Your task to perform on an android device: empty trash in the gmail app Image 0: 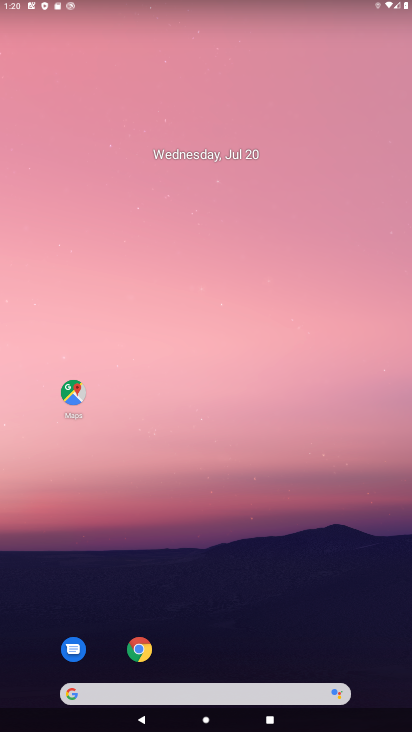
Step 0: press home button
Your task to perform on an android device: empty trash in the gmail app Image 1: 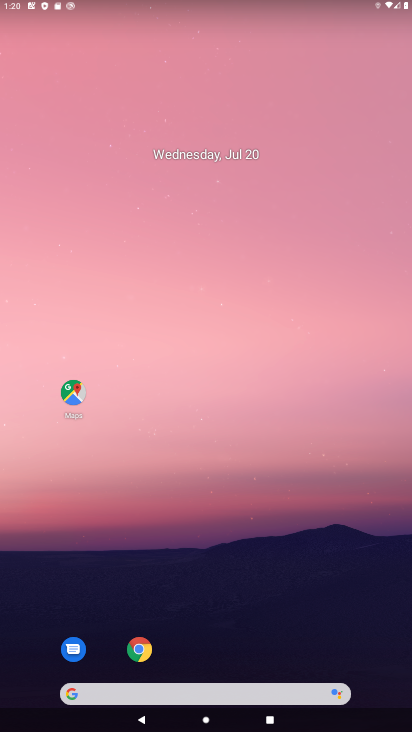
Step 1: press home button
Your task to perform on an android device: empty trash in the gmail app Image 2: 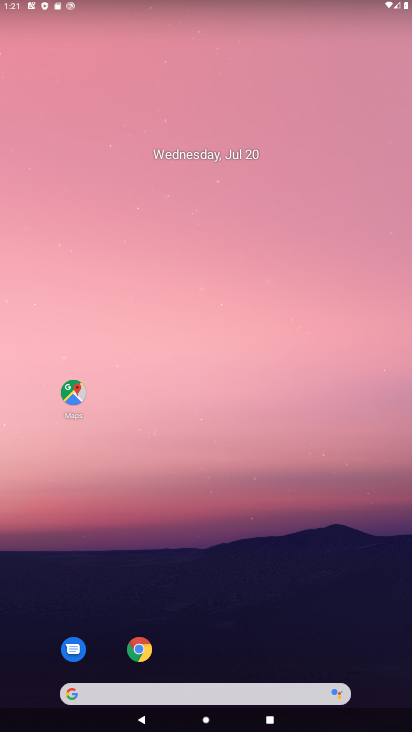
Step 2: drag from (229, 648) to (246, 18)
Your task to perform on an android device: empty trash in the gmail app Image 3: 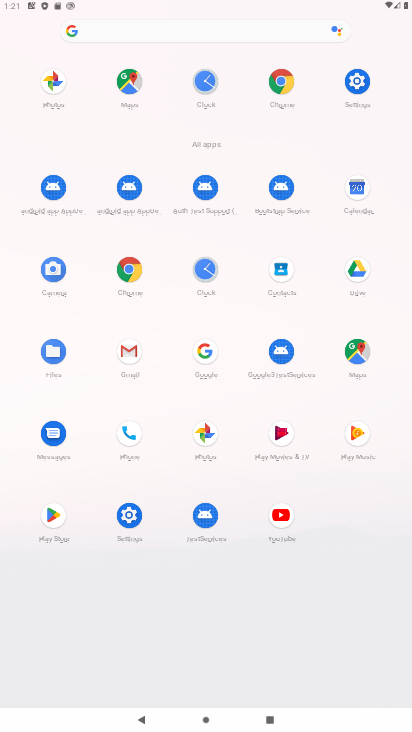
Step 3: click (127, 369)
Your task to perform on an android device: empty trash in the gmail app Image 4: 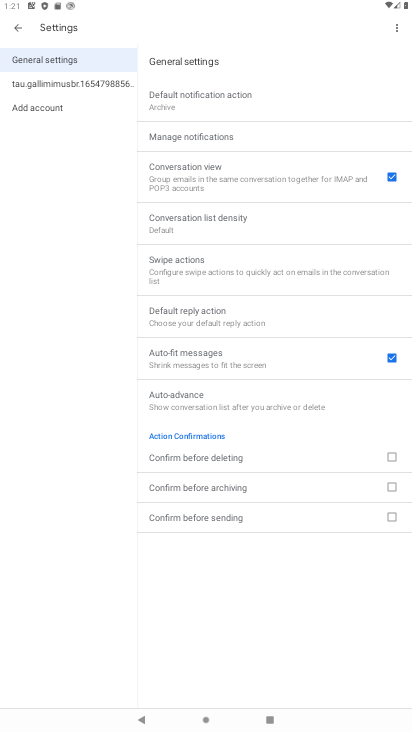
Step 4: click (16, 28)
Your task to perform on an android device: empty trash in the gmail app Image 5: 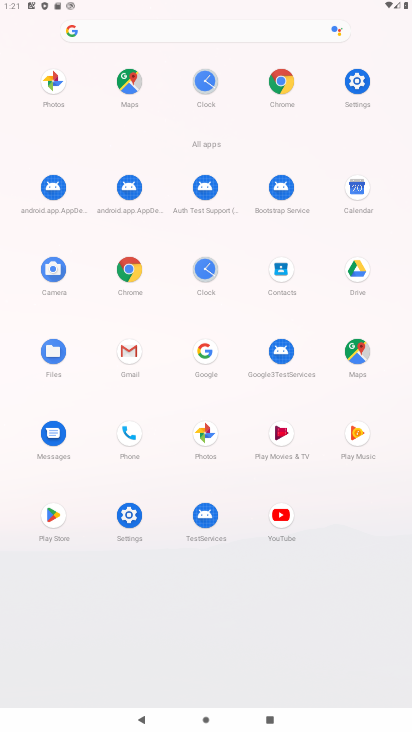
Step 5: click (16, 28)
Your task to perform on an android device: empty trash in the gmail app Image 6: 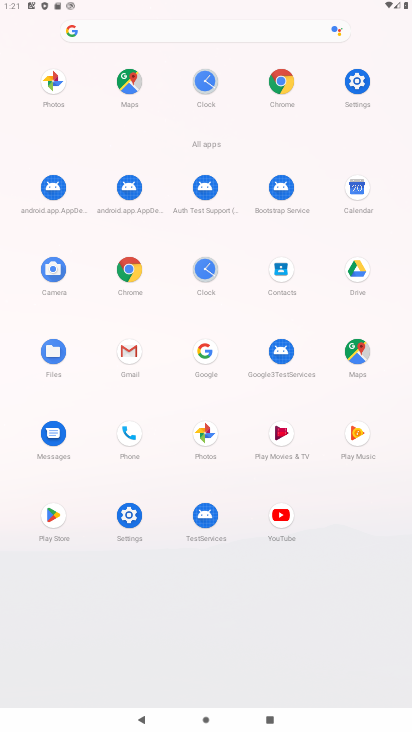
Step 6: click (129, 283)
Your task to perform on an android device: empty trash in the gmail app Image 7: 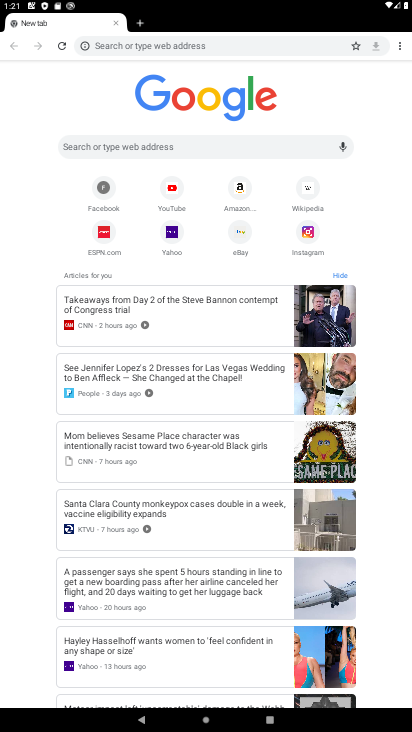
Step 7: press home button
Your task to perform on an android device: empty trash in the gmail app Image 8: 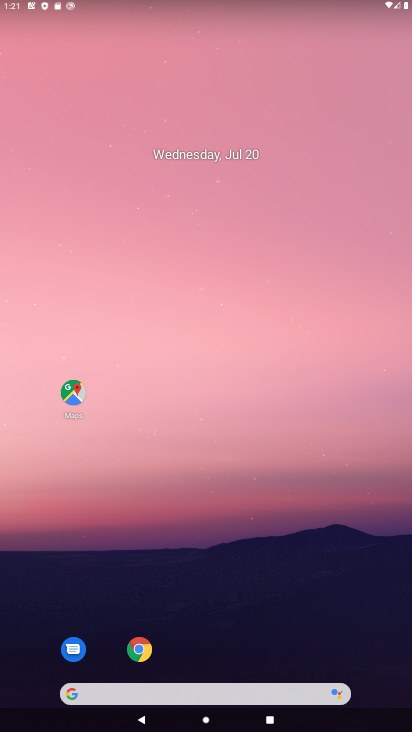
Step 8: drag from (268, 573) to (231, 241)
Your task to perform on an android device: empty trash in the gmail app Image 9: 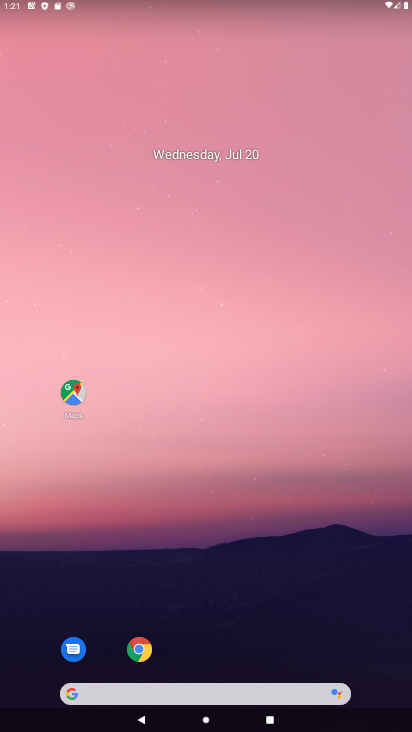
Step 9: drag from (321, 612) to (258, 18)
Your task to perform on an android device: empty trash in the gmail app Image 10: 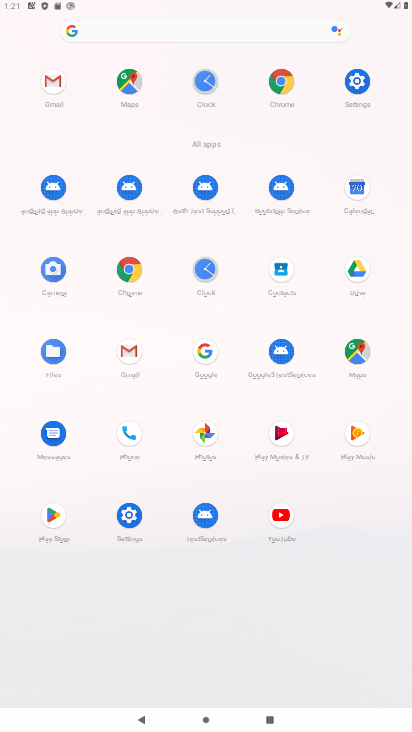
Step 10: click (133, 358)
Your task to perform on an android device: empty trash in the gmail app Image 11: 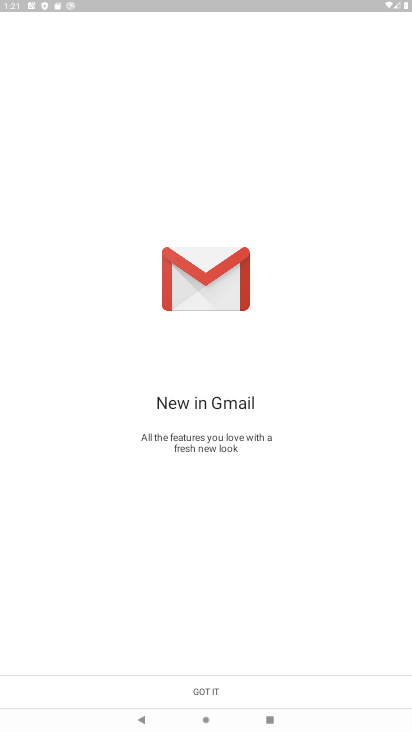
Step 11: click (231, 692)
Your task to perform on an android device: empty trash in the gmail app Image 12: 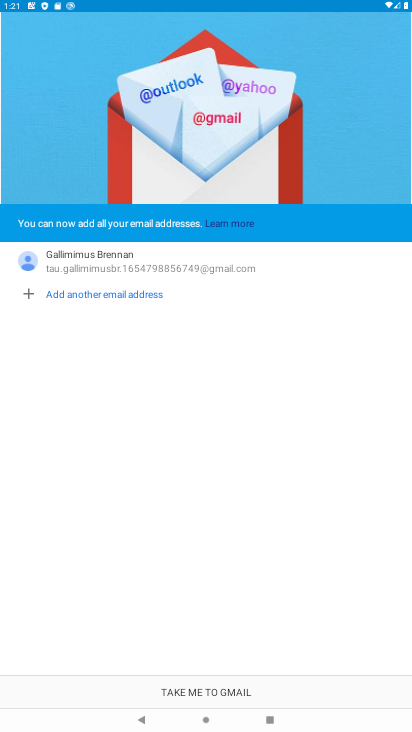
Step 12: click (237, 688)
Your task to perform on an android device: empty trash in the gmail app Image 13: 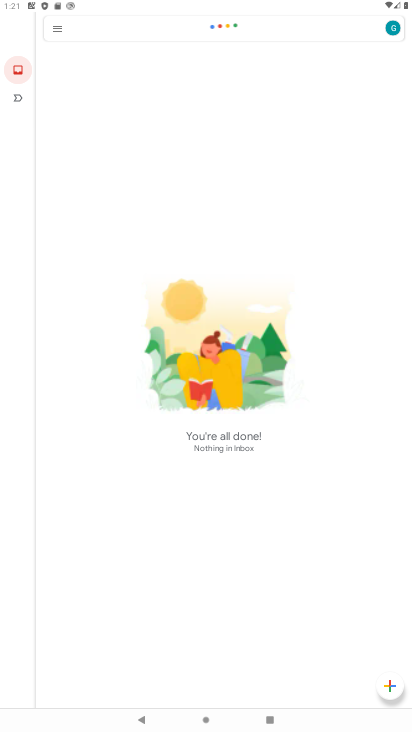
Step 13: click (57, 30)
Your task to perform on an android device: empty trash in the gmail app Image 14: 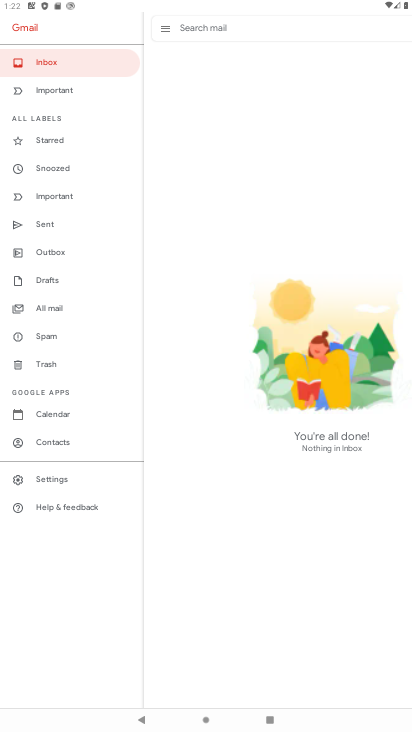
Step 14: click (33, 362)
Your task to perform on an android device: empty trash in the gmail app Image 15: 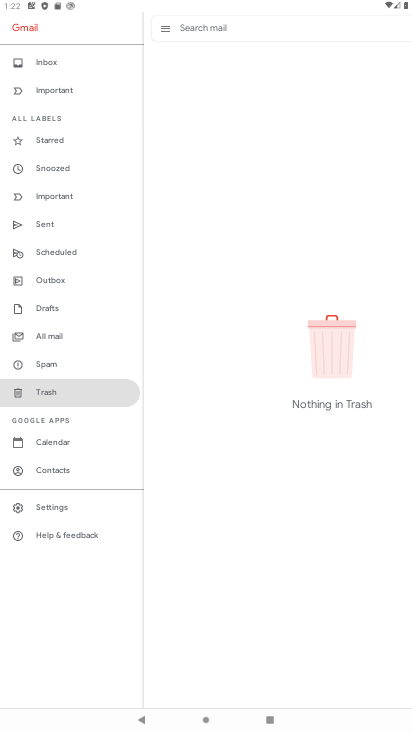
Step 15: task complete